Your task to perform on an android device: Play the last video I watched on Youtube Image 0: 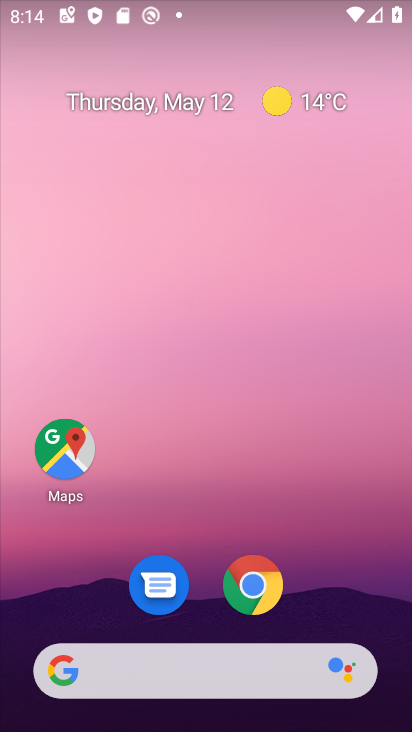
Step 0: drag from (297, 505) to (274, 33)
Your task to perform on an android device: Play the last video I watched on Youtube Image 1: 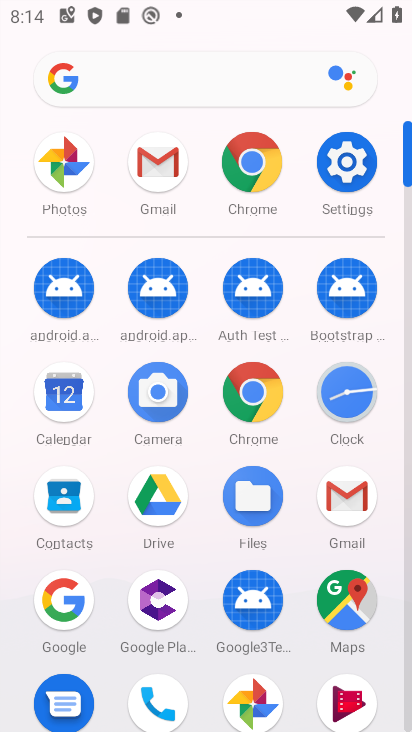
Step 1: drag from (202, 441) to (198, 176)
Your task to perform on an android device: Play the last video I watched on Youtube Image 2: 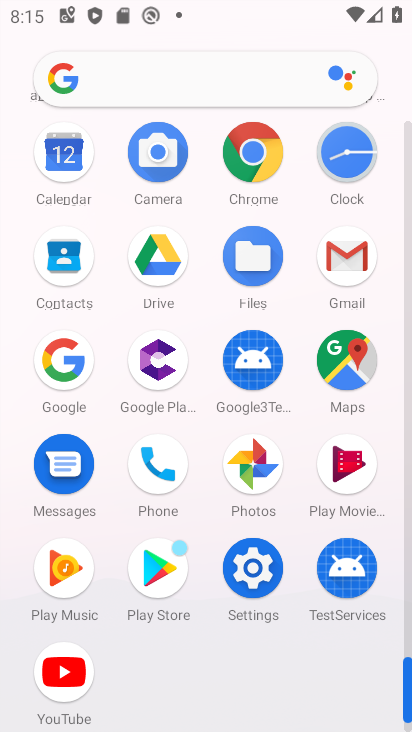
Step 2: click (71, 681)
Your task to perform on an android device: Play the last video I watched on Youtube Image 3: 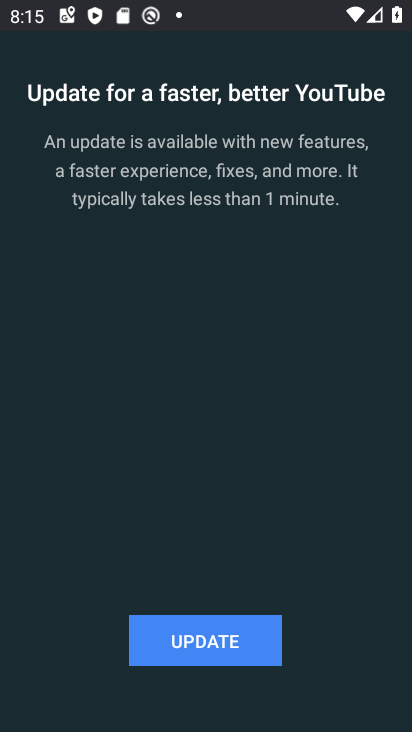
Step 3: click (263, 634)
Your task to perform on an android device: Play the last video I watched on Youtube Image 4: 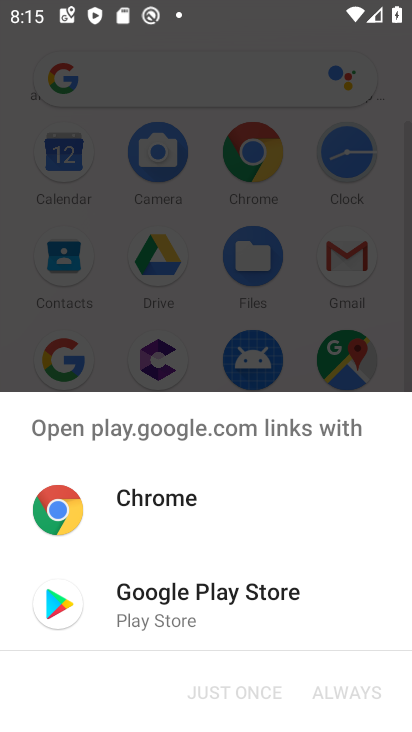
Step 4: click (177, 592)
Your task to perform on an android device: Play the last video I watched on Youtube Image 5: 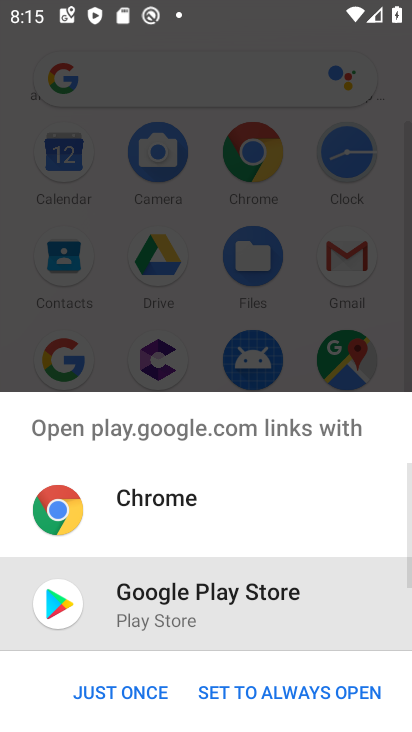
Step 5: click (135, 686)
Your task to perform on an android device: Play the last video I watched on Youtube Image 6: 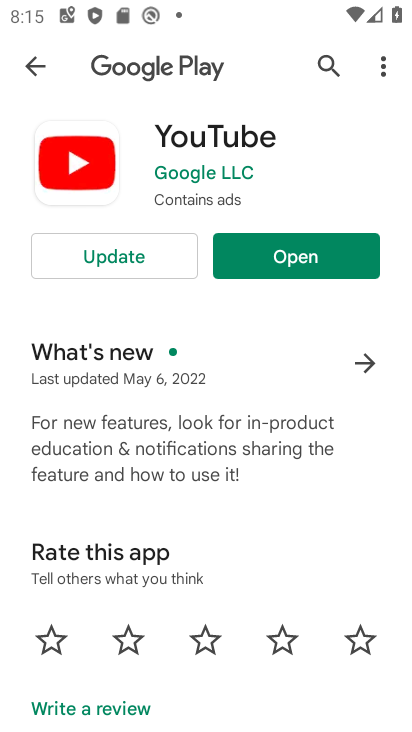
Step 6: click (168, 249)
Your task to perform on an android device: Play the last video I watched on Youtube Image 7: 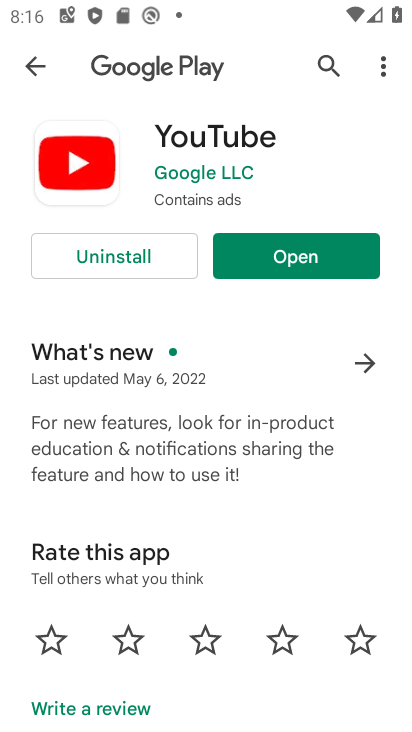
Step 7: click (265, 262)
Your task to perform on an android device: Play the last video I watched on Youtube Image 8: 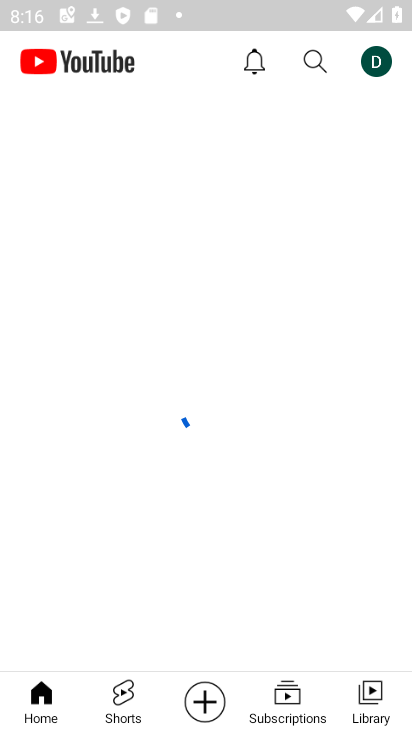
Step 8: click (364, 690)
Your task to perform on an android device: Play the last video I watched on Youtube Image 9: 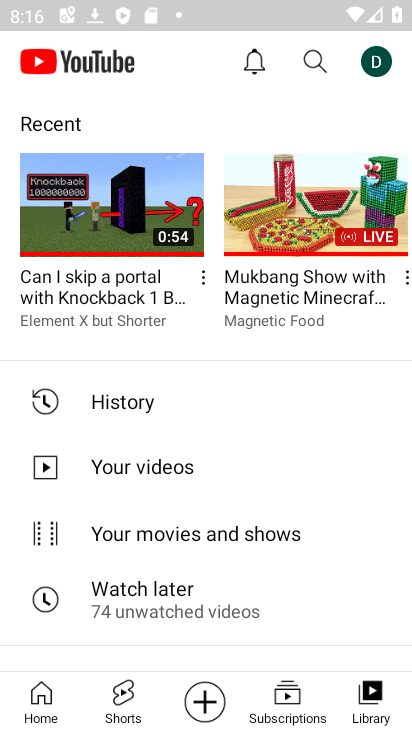
Step 9: click (129, 396)
Your task to perform on an android device: Play the last video I watched on Youtube Image 10: 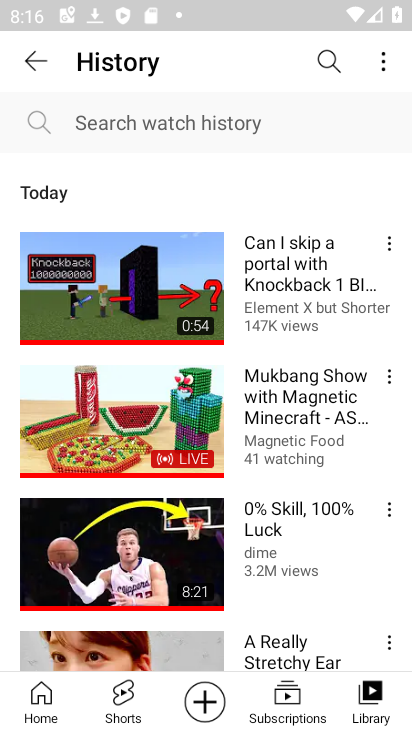
Step 10: click (136, 293)
Your task to perform on an android device: Play the last video I watched on Youtube Image 11: 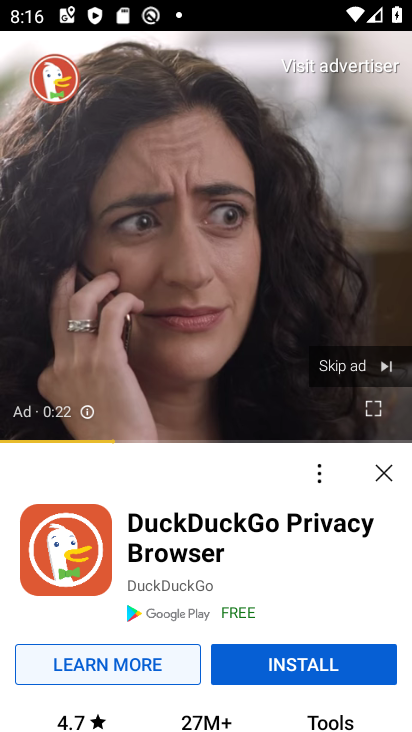
Step 11: click (334, 362)
Your task to perform on an android device: Play the last video I watched on Youtube Image 12: 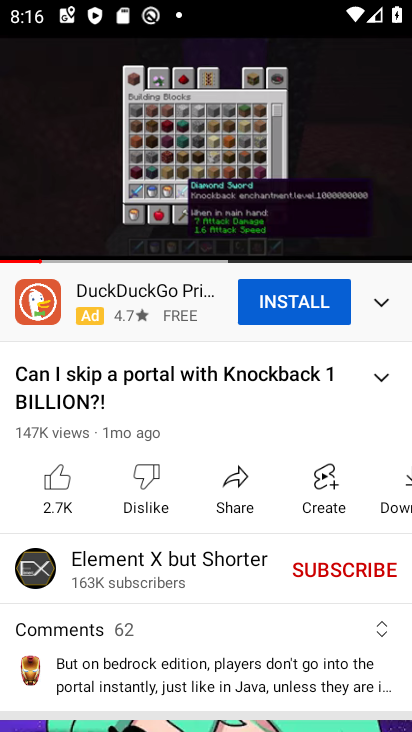
Step 12: click (321, 185)
Your task to perform on an android device: Play the last video I watched on Youtube Image 13: 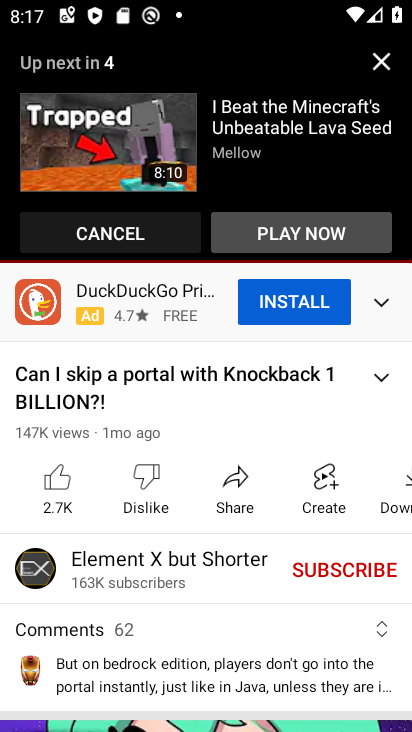
Step 13: task complete